Your task to perform on an android device: Open Chrome and go to the settings page Image 0: 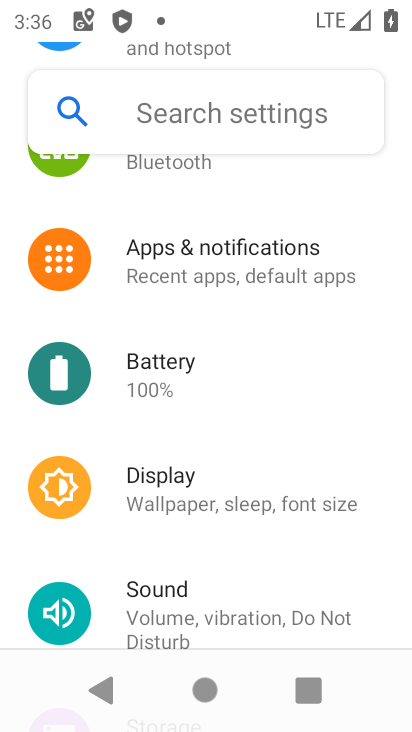
Step 0: press home button
Your task to perform on an android device: Open Chrome and go to the settings page Image 1: 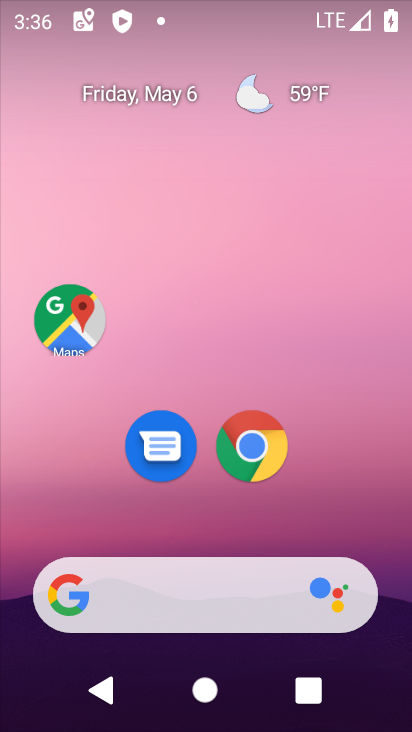
Step 1: drag from (330, 524) to (346, 184)
Your task to perform on an android device: Open Chrome and go to the settings page Image 2: 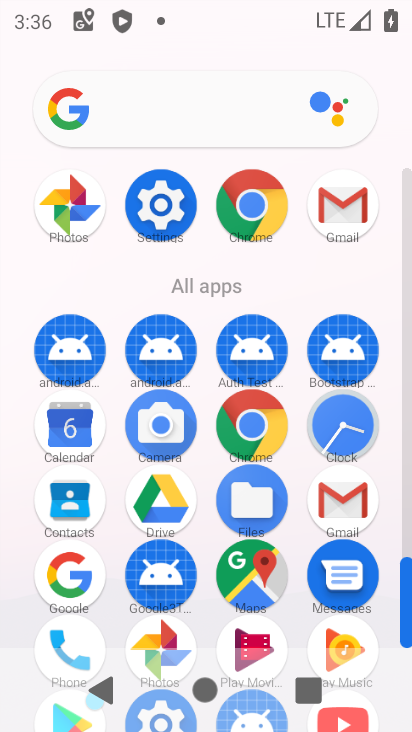
Step 2: click (251, 212)
Your task to perform on an android device: Open Chrome and go to the settings page Image 3: 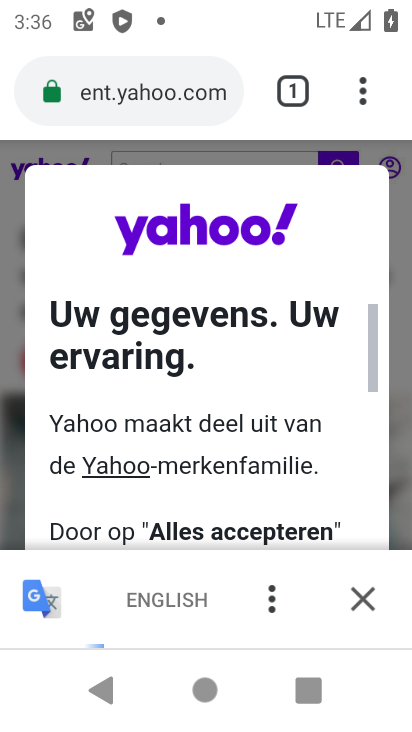
Step 3: task complete